Your task to perform on an android device: Add "bose soundlink mini" to the cart on target.com Image 0: 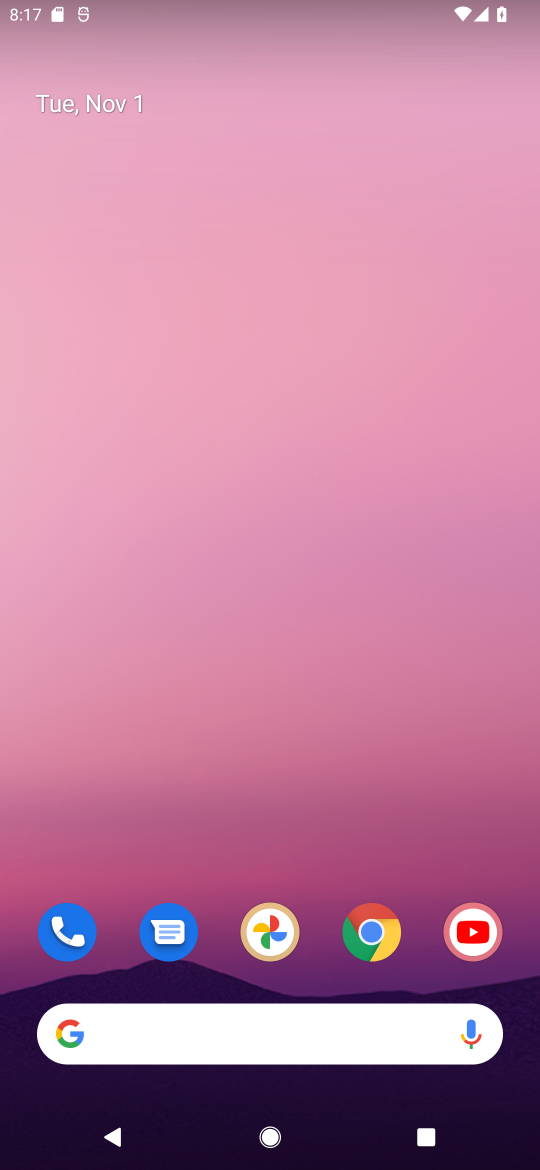
Step 0: click (369, 939)
Your task to perform on an android device: Add "bose soundlink mini" to the cart on target.com Image 1: 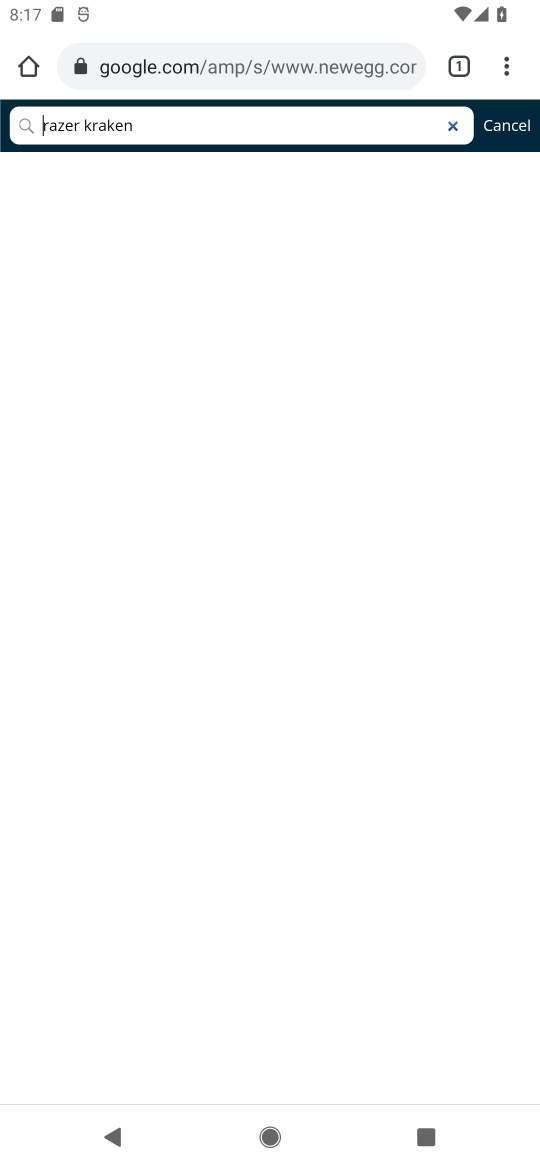
Step 1: click (168, 77)
Your task to perform on an android device: Add "bose soundlink mini" to the cart on target.com Image 2: 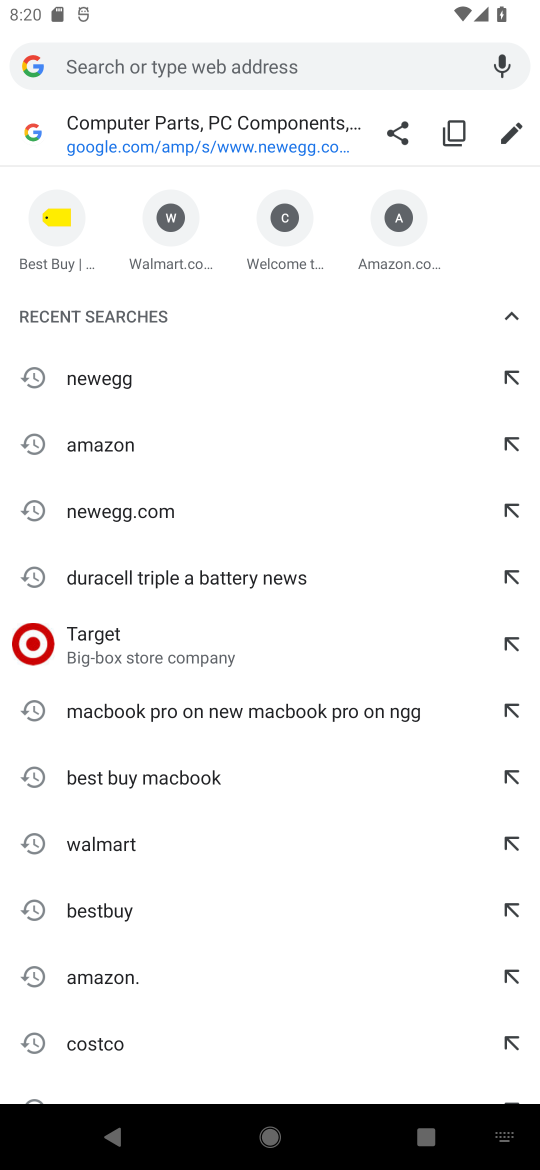
Step 2: click (93, 648)
Your task to perform on an android device: Add "bose soundlink mini" to the cart on target.com Image 3: 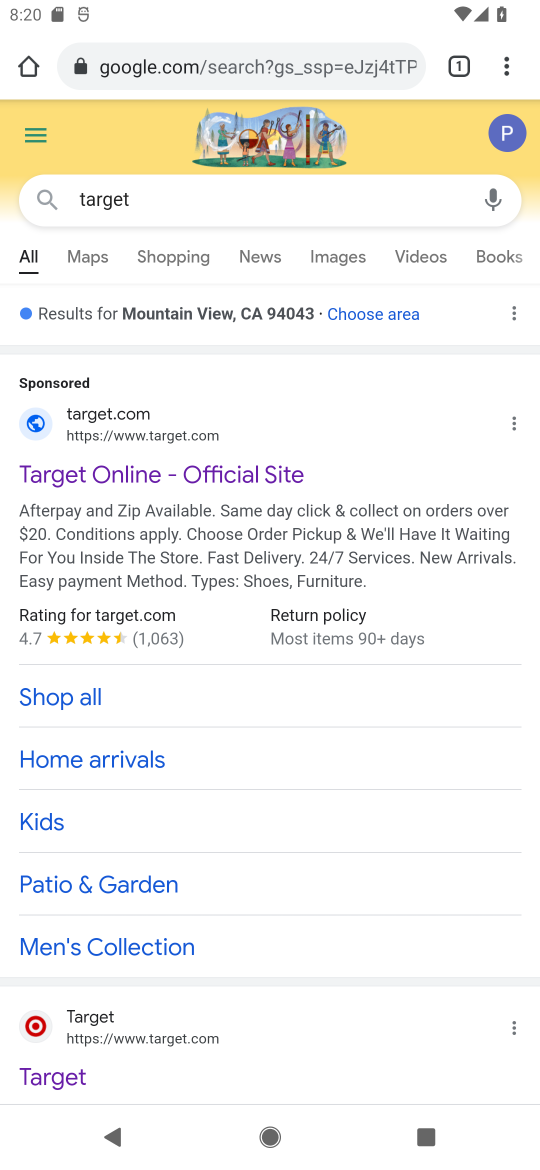
Step 3: click (105, 430)
Your task to perform on an android device: Add "bose soundlink mini" to the cart on target.com Image 4: 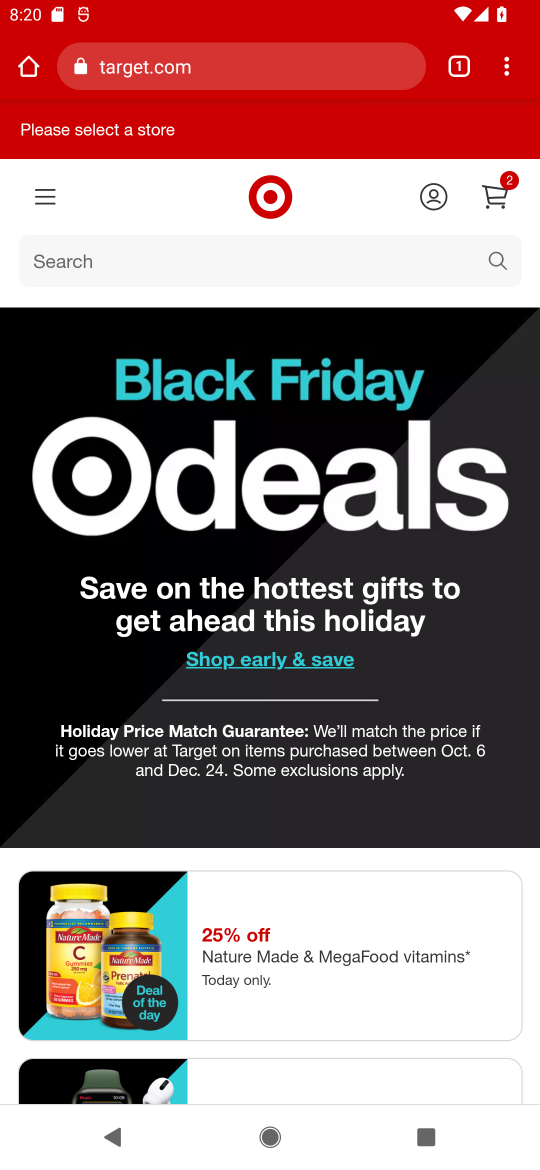
Step 4: click (143, 258)
Your task to perform on an android device: Add "bose soundlink mini" to the cart on target.com Image 5: 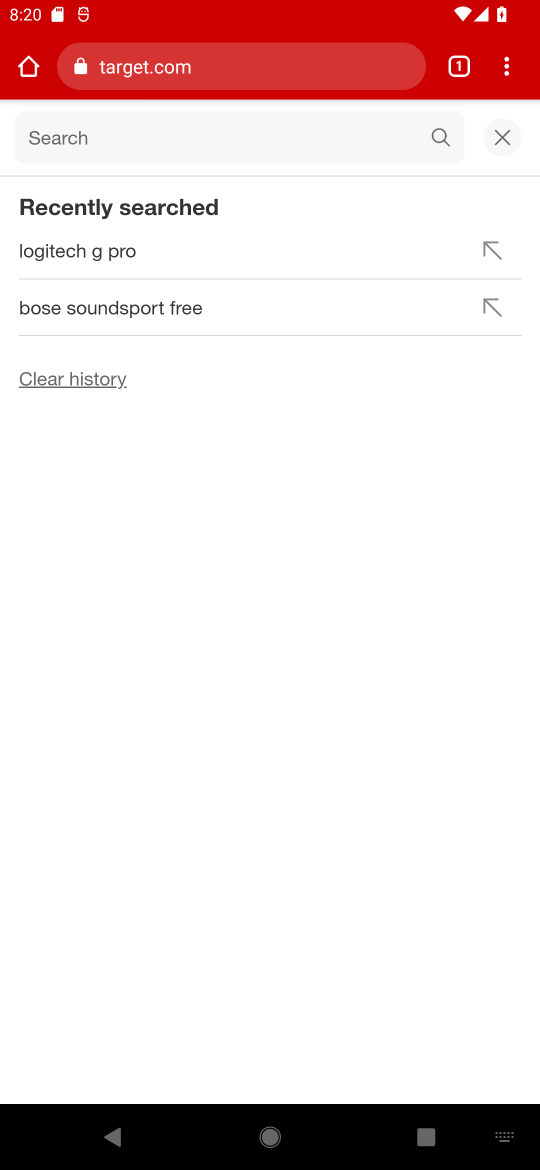
Step 5: type "bose soundlink mini"
Your task to perform on an android device: Add "bose soundlink mini" to the cart on target.com Image 6: 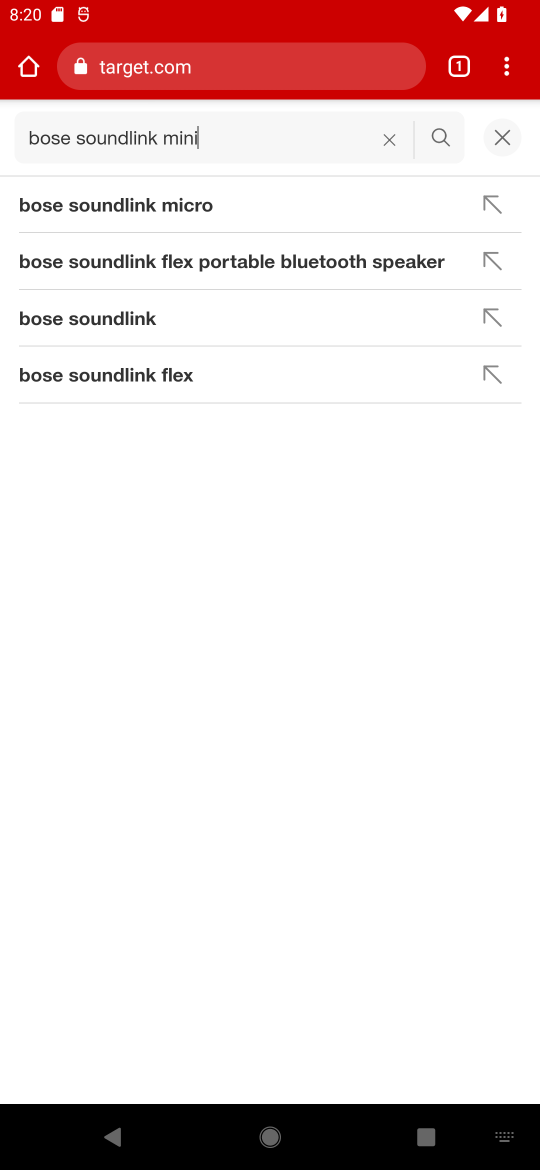
Step 6: click (439, 136)
Your task to perform on an android device: Add "bose soundlink mini" to the cart on target.com Image 7: 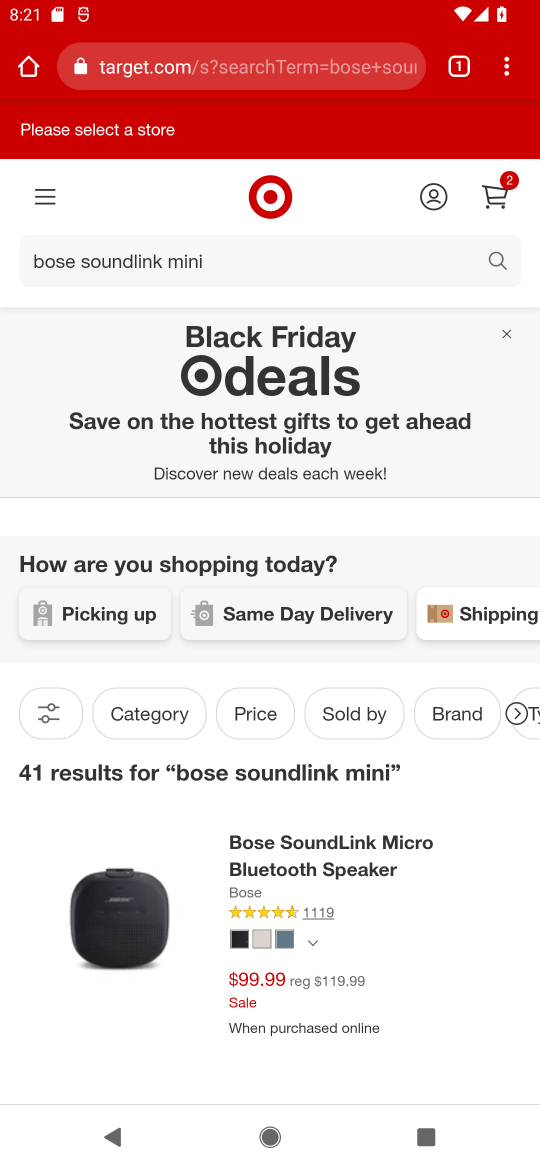
Step 7: drag from (188, 966) to (197, 530)
Your task to perform on an android device: Add "bose soundlink mini" to the cart on target.com Image 8: 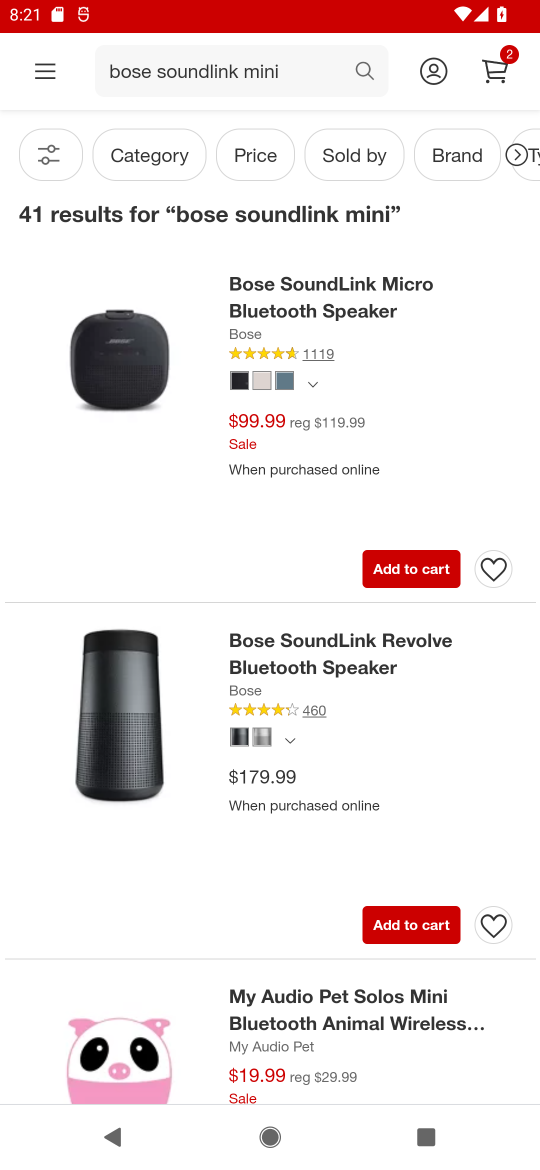
Step 8: click (152, 739)
Your task to perform on an android device: Add "bose soundlink mini" to the cart on target.com Image 9: 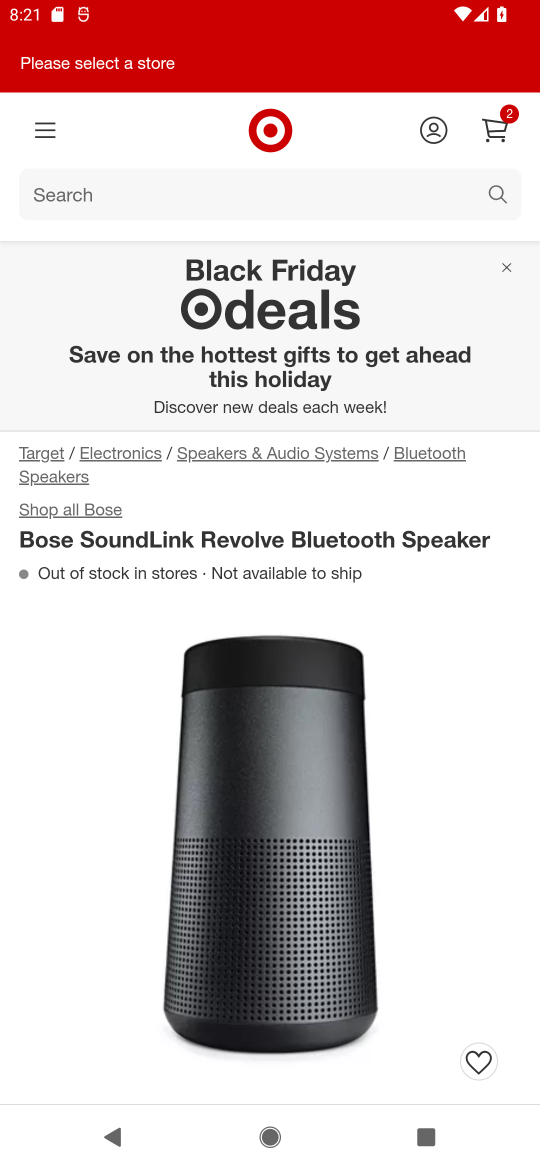
Step 9: task complete